Your task to perform on an android device: Open wifi settings Image 0: 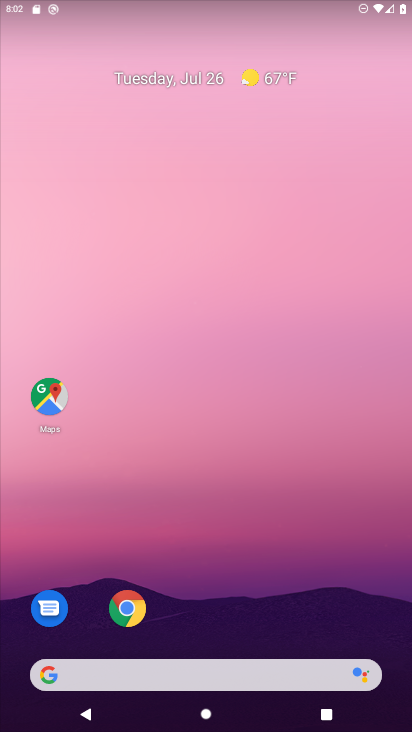
Step 0: drag from (239, 618) to (214, 6)
Your task to perform on an android device: Open wifi settings Image 1: 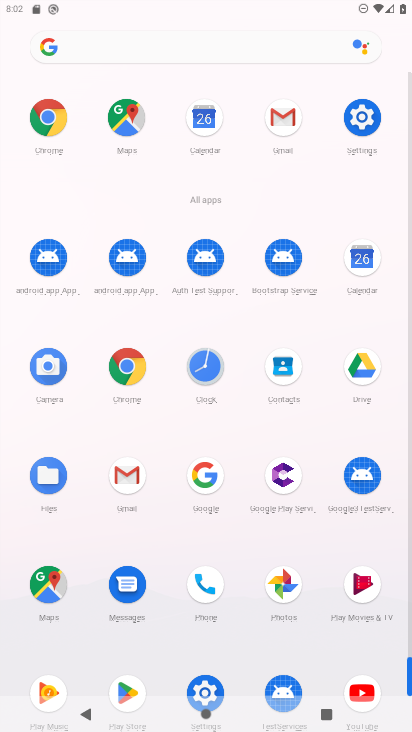
Step 1: click (360, 117)
Your task to perform on an android device: Open wifi settings Image 2: 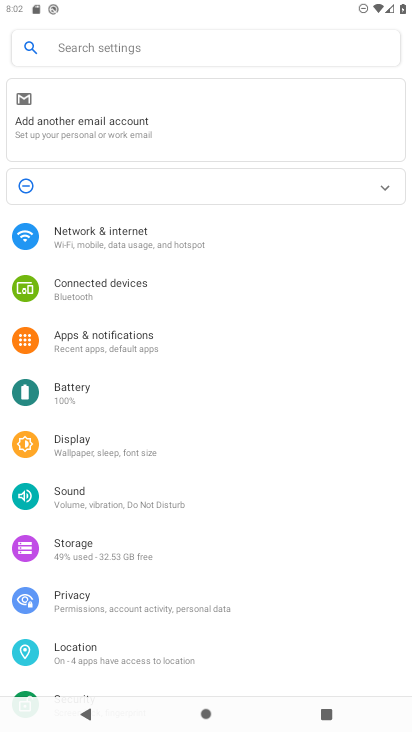
Step 2: click (132, 232)
Your task to perform on an android device: Open wifi settings Image 3: 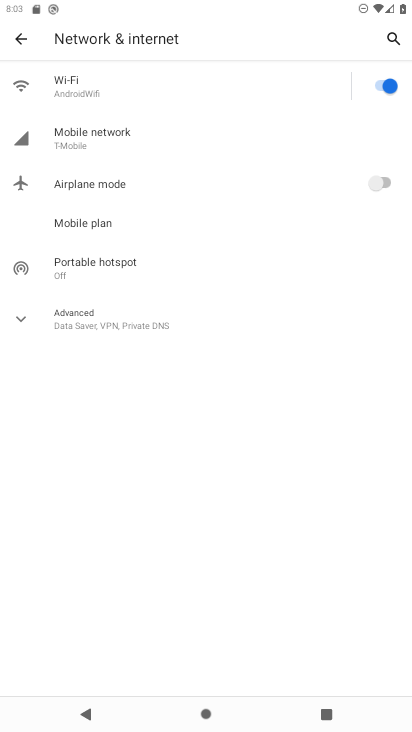
Step 3: click (91, 73)
Your task to perform on an android device: Open wifi settings Image 4: 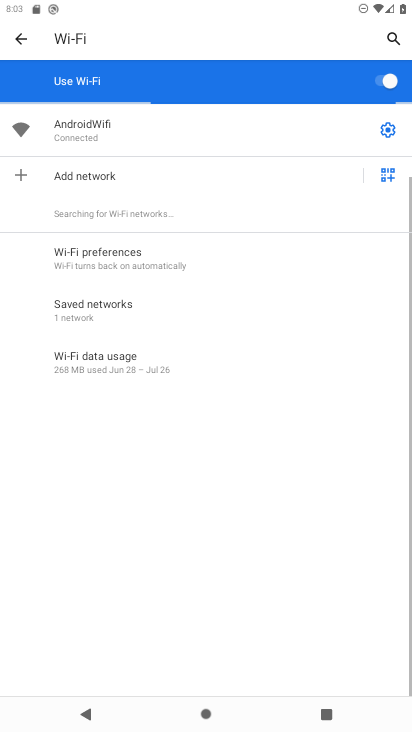
Step 4: task complete